Your task to perform on an android device: change text size in settings app Image 0: 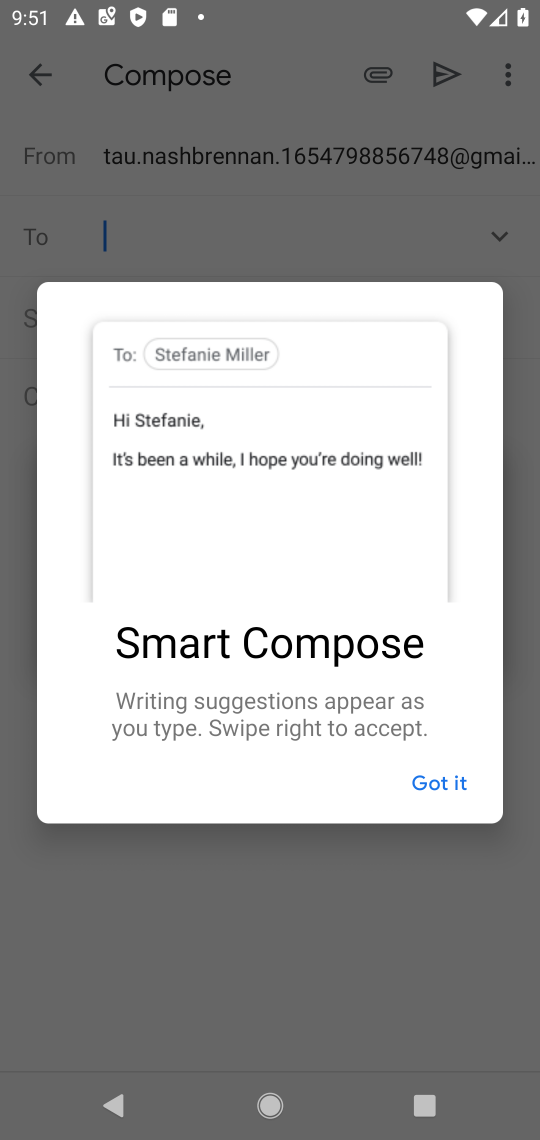
Step 0: press home button
Your task to perform on an android device: change text size in settings app Image 1: 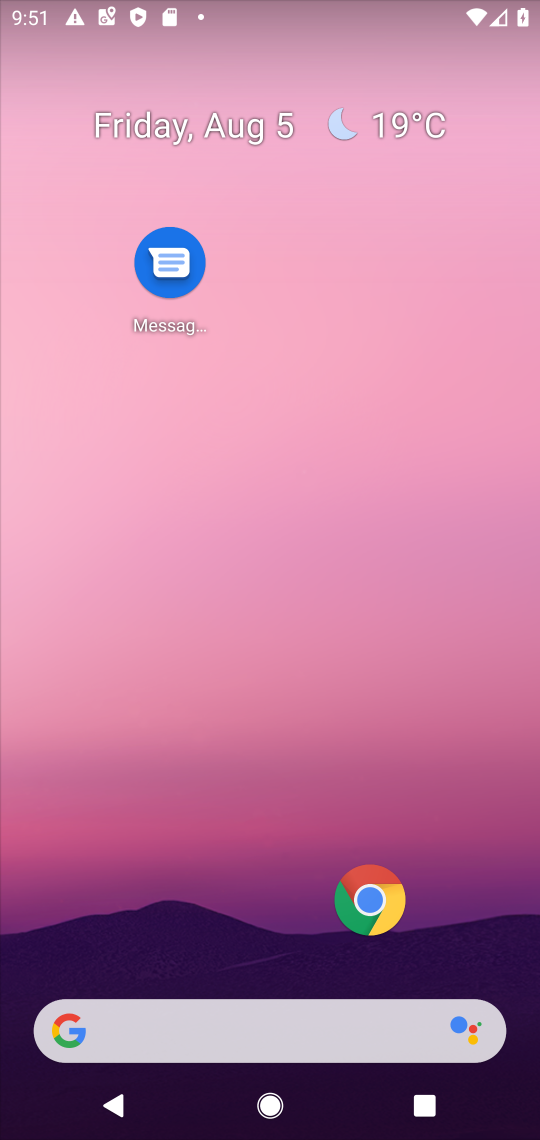
Step 1: drag from (257, 947) to (257, 33)
Your task to perform on an android device: change text size in settings app Image 2: 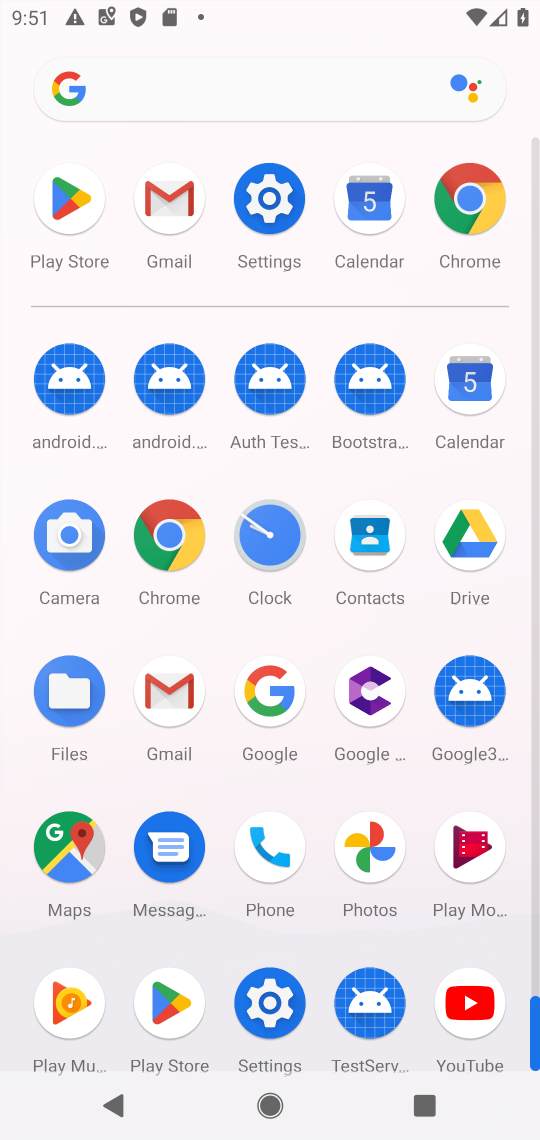
Step 2: click (279, 997)
Your task to perform on an android device: change text size in settings app Image 3: 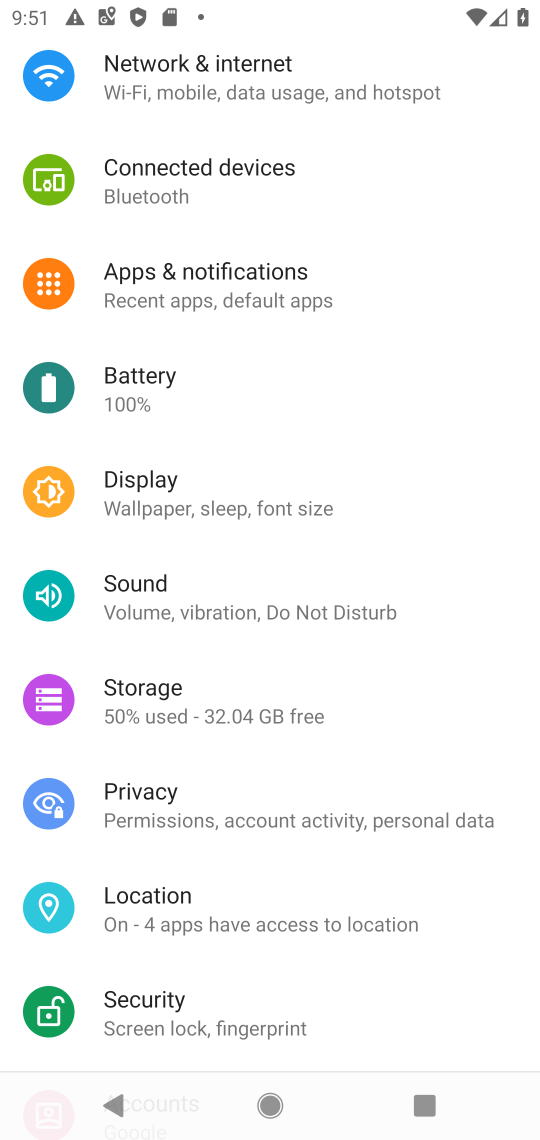
Step 3: click (189, 484)
Your task to perform on an android device: change text size in settings app Image 4: 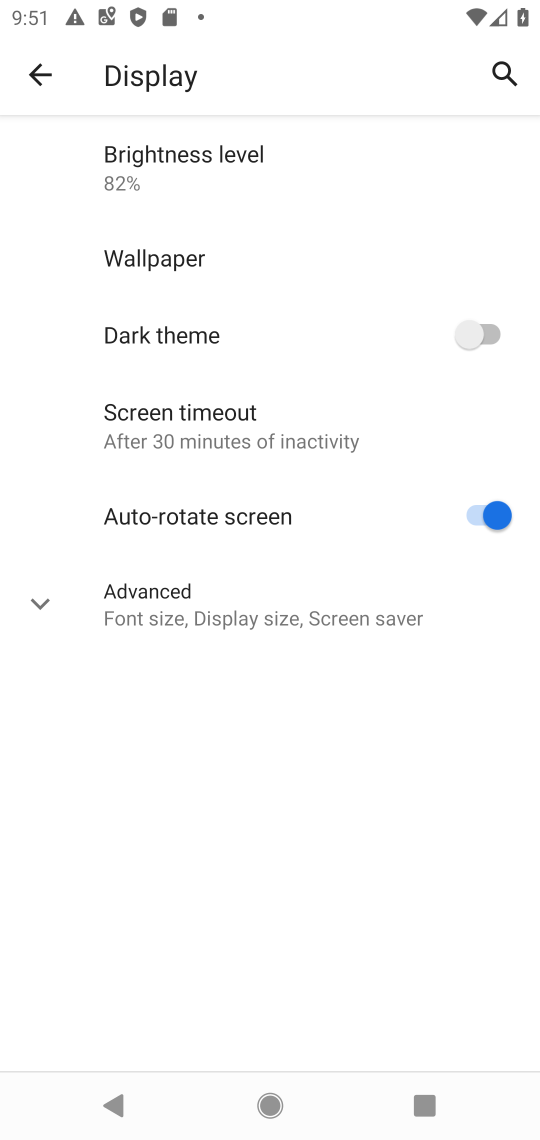
Step 4: click (227, 600)
Your task to perform on an android device: change text size in settings app Image 5: 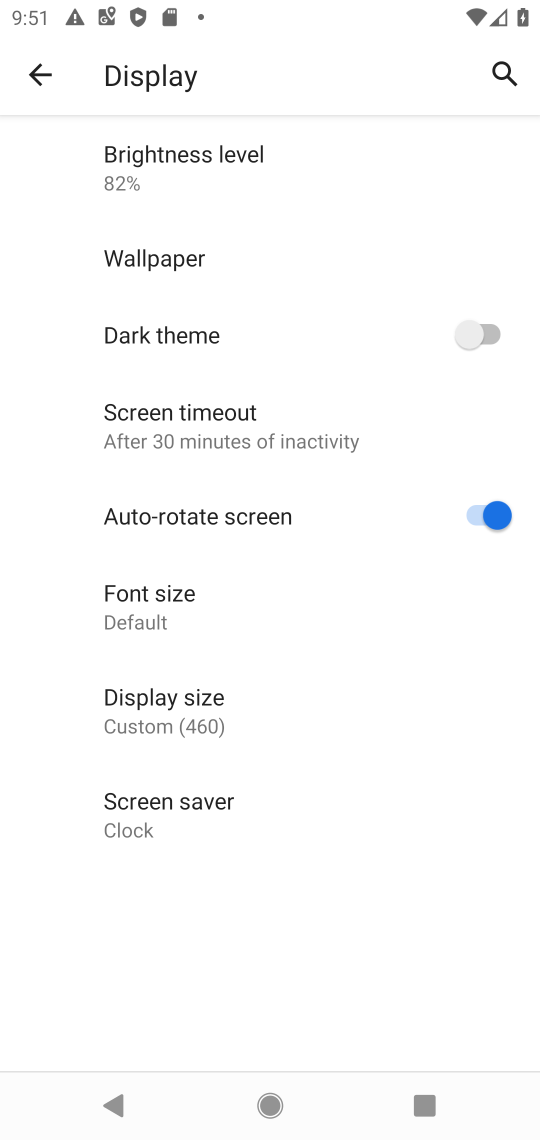
Step 5: click (130, 615)
Your task to perform on an android device: change text size in settings app Image 6: 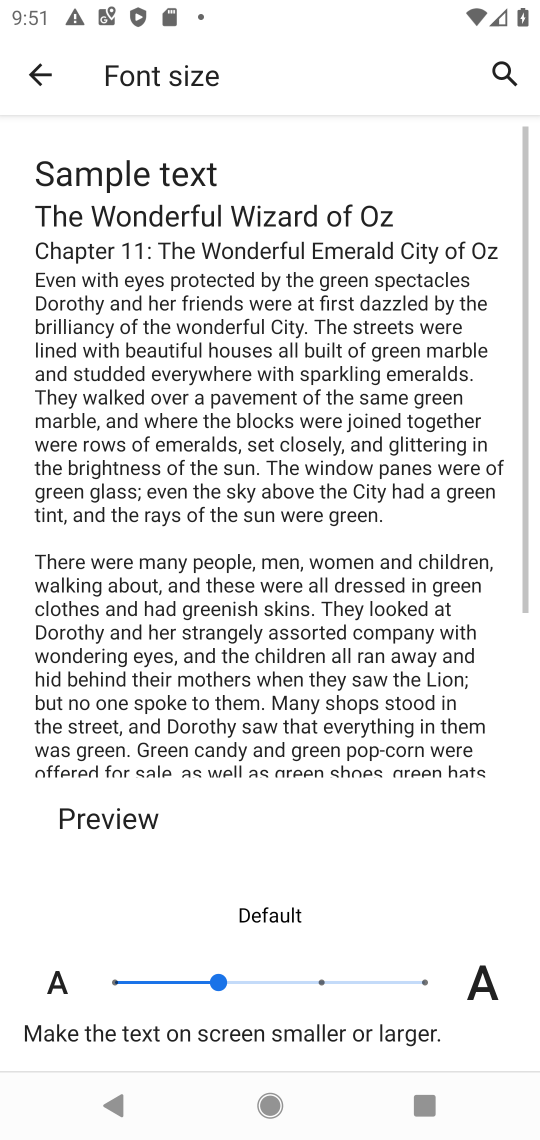
Step 6: task complete